Your task to perform on an android device: check out phone information Image 0: 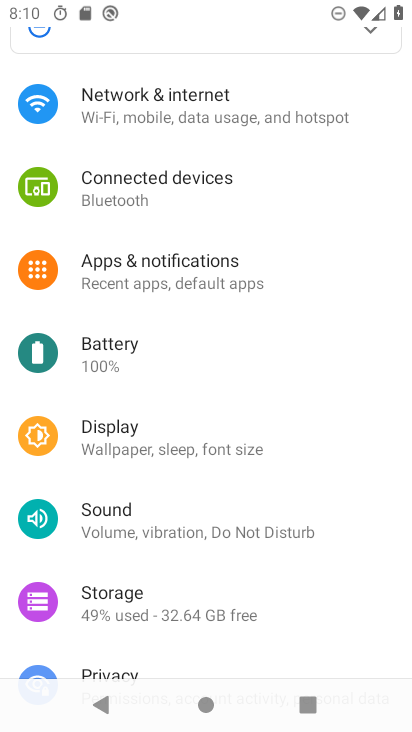
Step 0: press home button
Your task to perform on an android device: check out phone information Image 1: 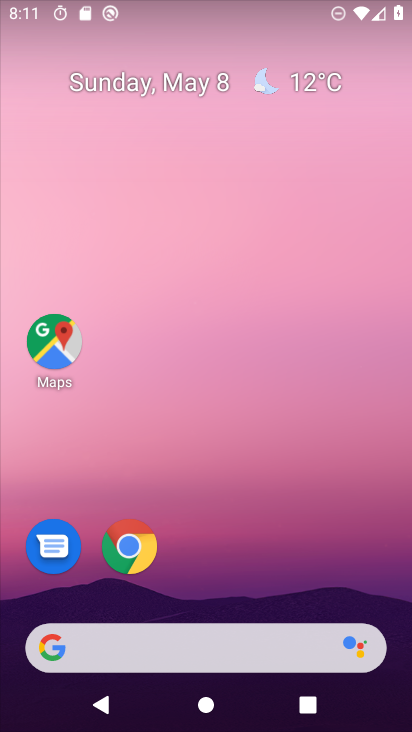
Step 1: drag from (291, 456) to (307, 106)
Your task to perform on an android device: check out phone information Image 2: 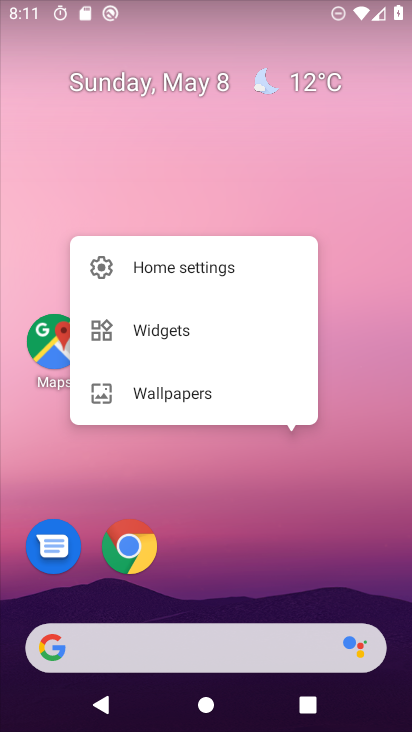
Step 2: click (242, 484)
Your task to perform on an android device: check out phone information Image 3: 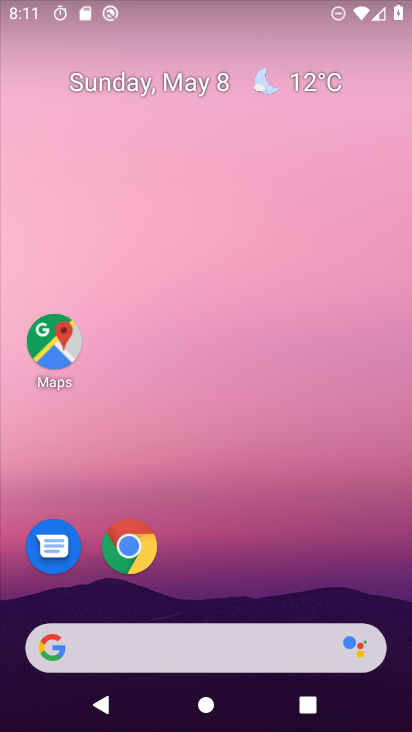
Step 3: drag from (242, 484) to (249, 231)
Your task to perform on an android device: check out phone information Image 4: 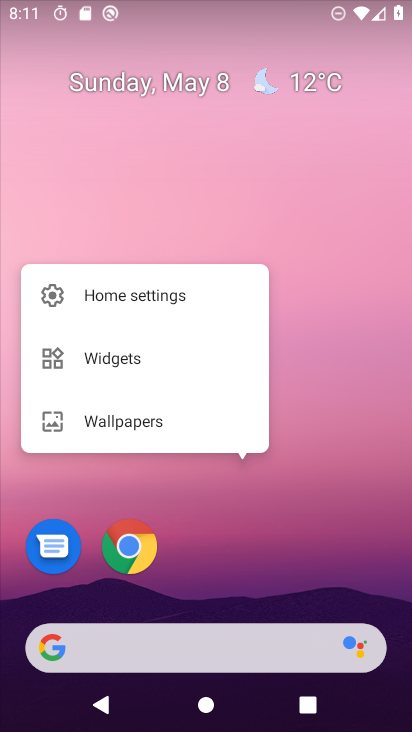
Step 4: click (249, 231)
Your task to perform on an android device: check out phone information Image 5: 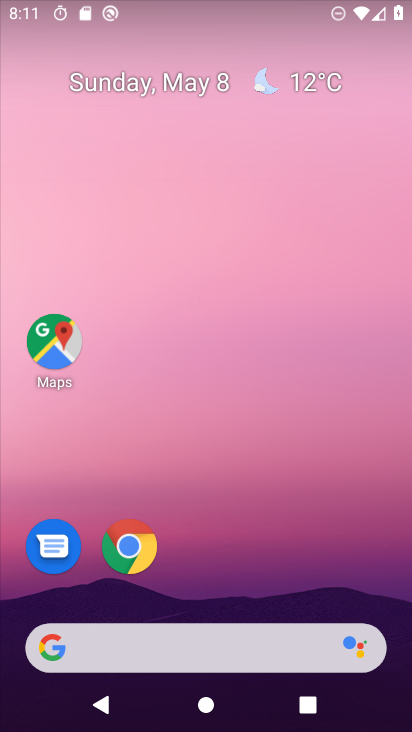
Step 5: drag from (242, 453) to (272, 174)
Your task to perform on an android device: check out phone information Image 6: 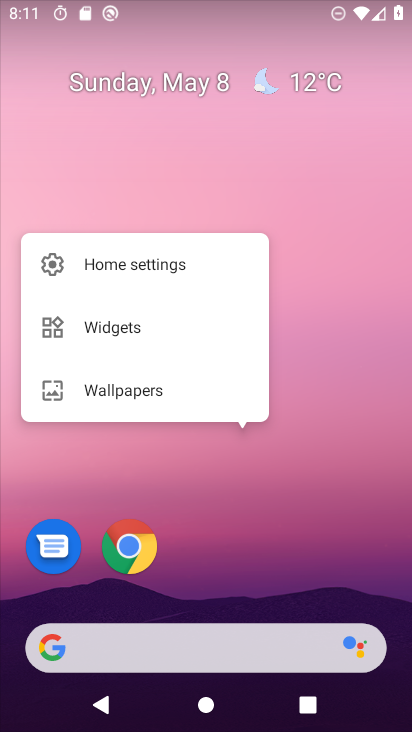
Step 6: click (247, 506)
Your task to perform on an android device: check out phone information Image 7: 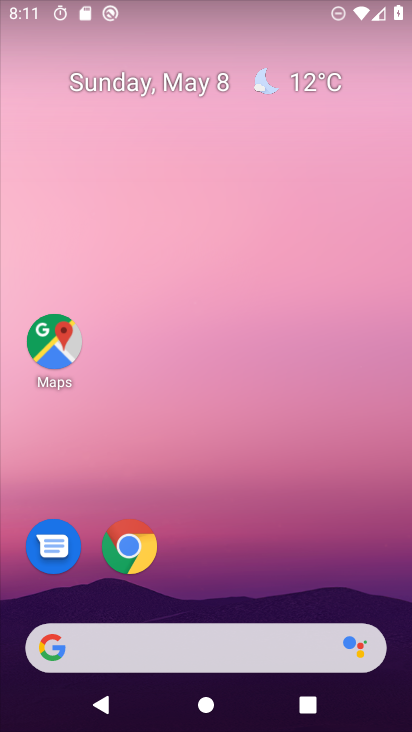
Step 7: drag from (240, 584) to (251, 54)
Your task to perform on an android device: check out phone information Image 8: 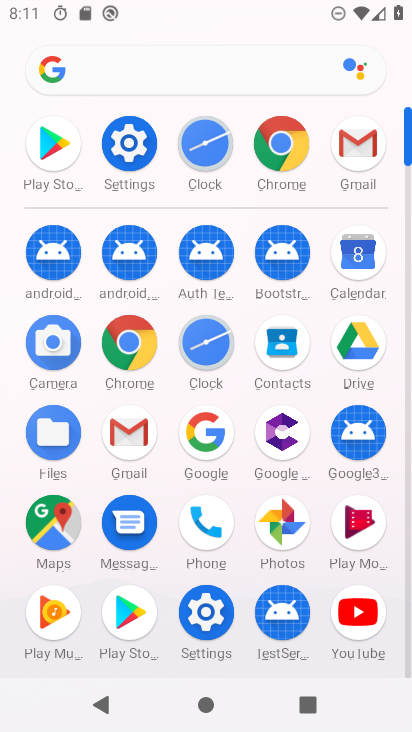
Step 8: click (210, 521)
Your task to perform on an android device: check out phone information Image 9: 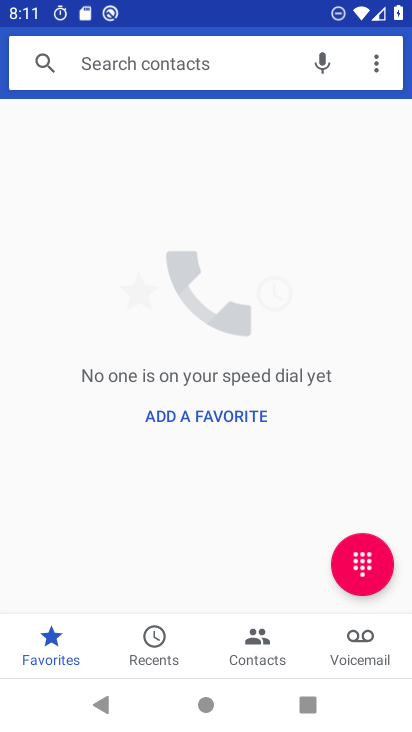
Step 9: click (376, 61)
Your task to perform on an android device: check out phone information Image 10: 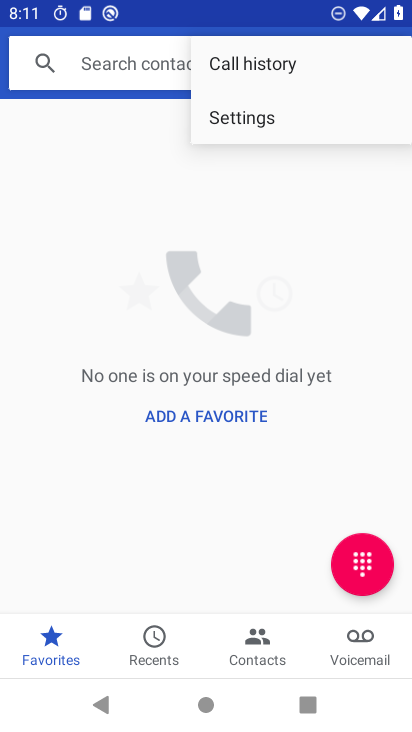
Step 10: click (285, 119)
Your task to perform on an android device: check out phone information Image 11: 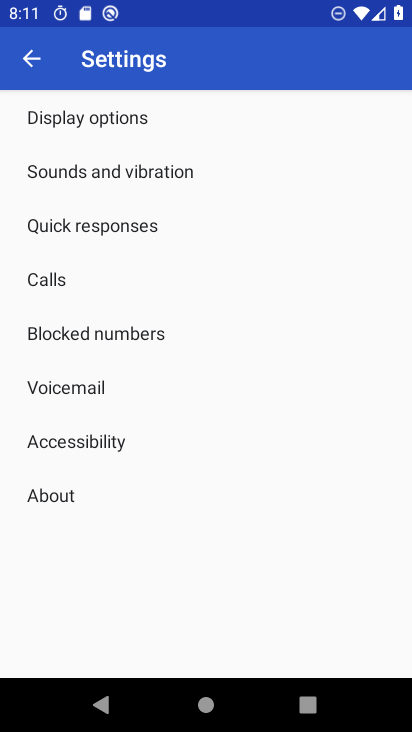
Step 11: click (62, 488)
Your task to perform on an android device: check out phone information Image 12: 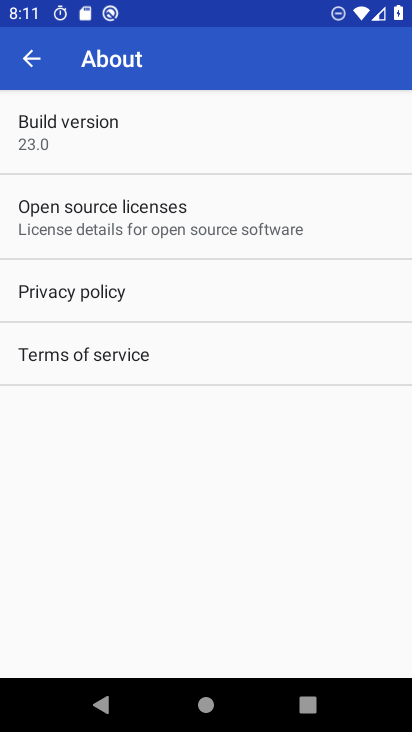
Step 12: task complete